Your task to perform on an android device: Go to Google Image 0: 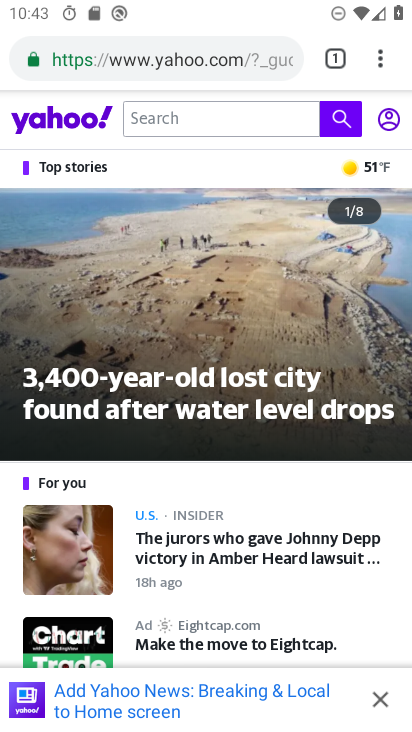
Step 0: press home button
Your task to perform on an android device: Go to Google Image 1: 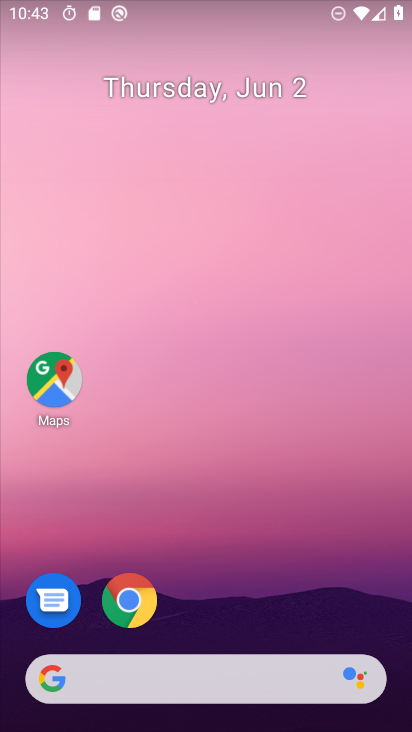
Step 1: drag from (238, 613) to (268, 56)
Your task to perform on an android device: Go to Google Image 2: 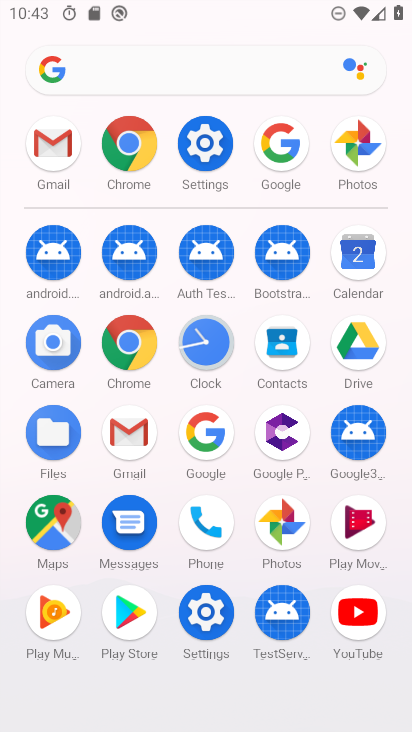
Step 2: click (207, 434)
Your task to perform on an android device: Go to Google Image 3: 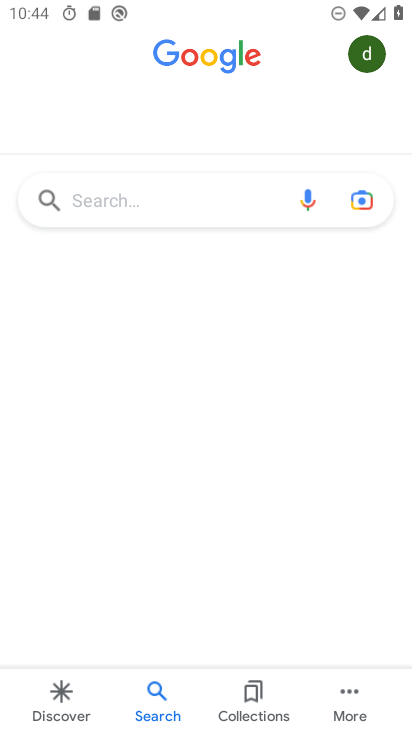
Step 3: task complete